Your task to perform on an android device: turn off priority inbox in the gmail app Image 0: 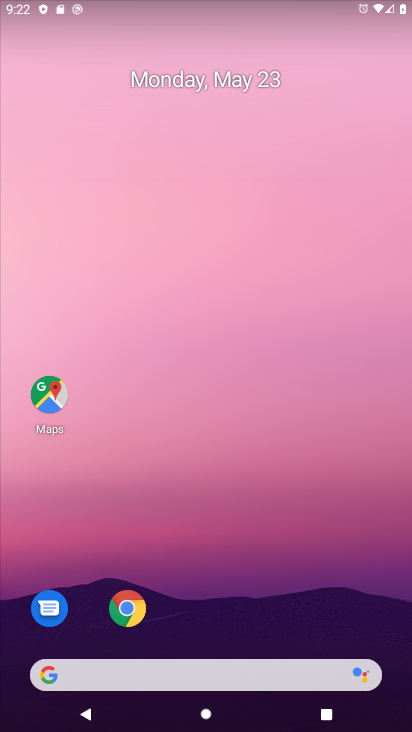
Step 0: drag from (243, 600) to (215, 192)
Your task to perform on an android device: turn off priority inbox in the gmail app Image 1: 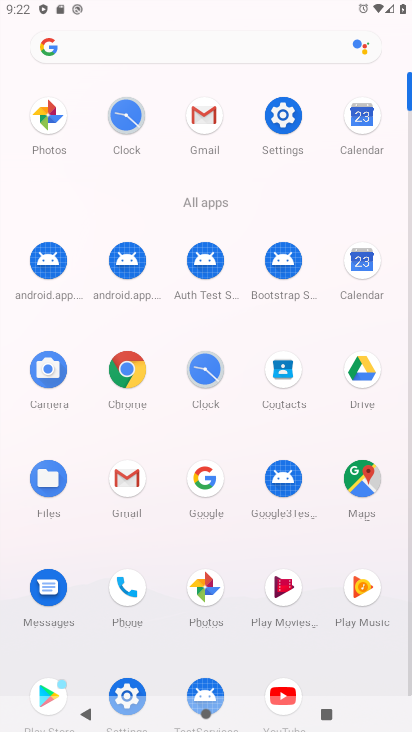
Step 1: click (205, 127)
Your task to perform on an android device: turn off priority inbox in the gmail app Image 2: 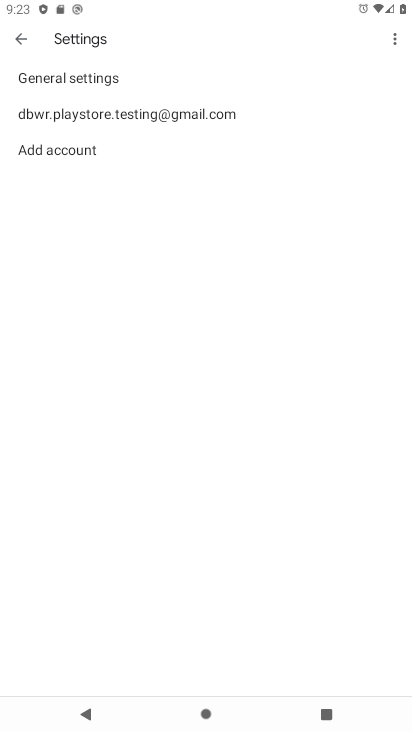
Step 2: click (198, 117)
Your task to perform on an android device: turn off priority inbox in the gmail app Image 3: 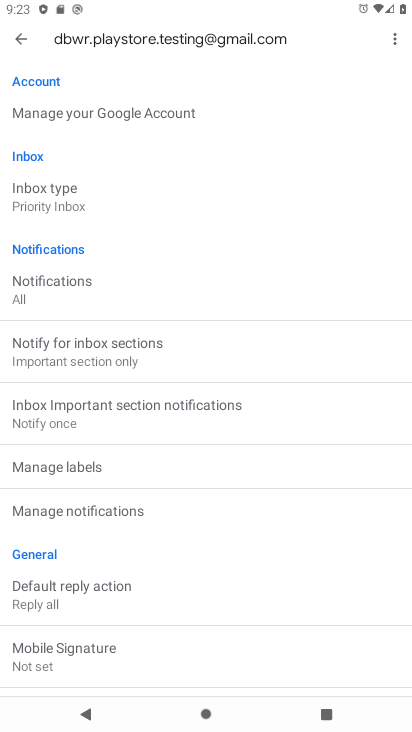
Step 3: click (121, 199)
Your task to perform on an android device: turn off priority inbox in the gmail app Image 4: 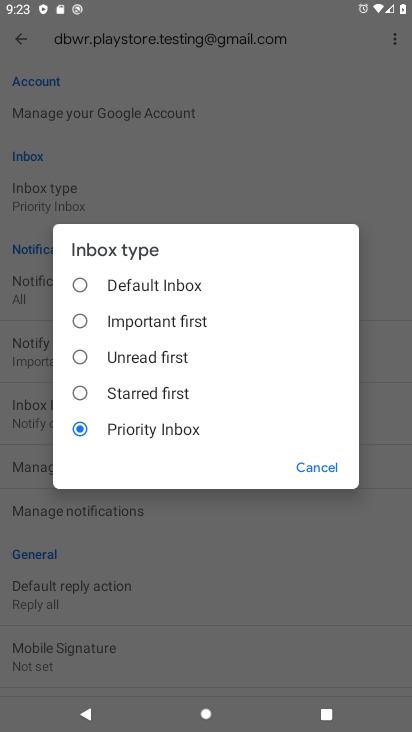
Step 4: click (152, 275)
Your task to perform on an android device: turn off priority inbox in the gmail app Image 5: 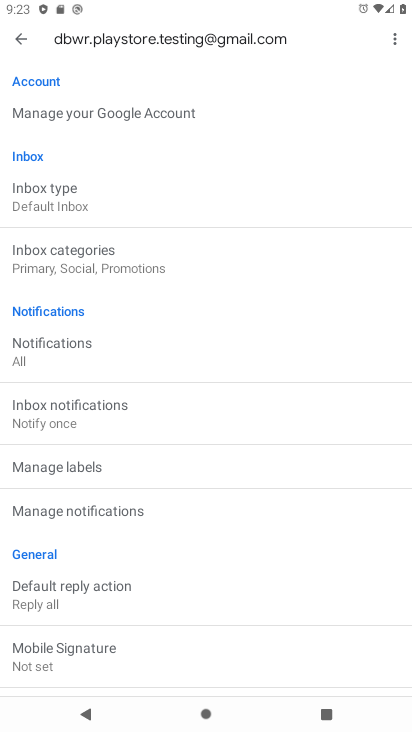
Step 5: task complete